Your task to perform on an android device: Go to ESPN.com Image 0: 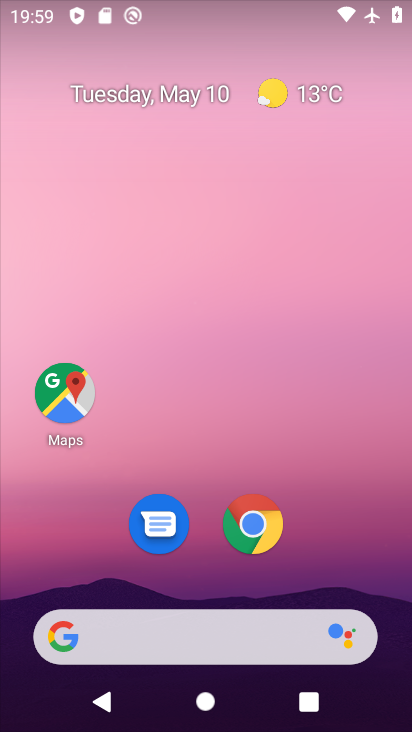
Step 0: click (269, 634)
Your task to perform on an android device: Go to ESPN.com Image 1: 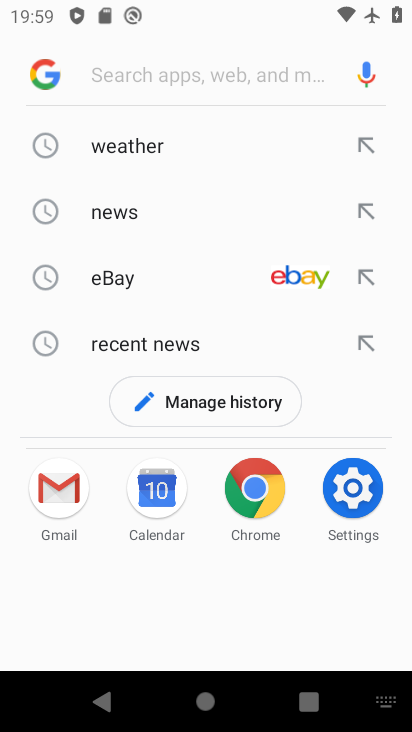
Step 1: type "espn.com"
Your task to perform on an android device: Go to ESPN.com Image 2: 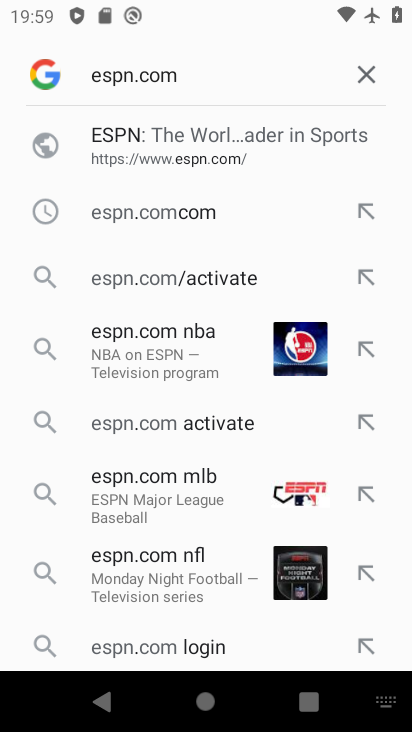
Step 2: click (115, 144)
Your task to perform on an android device: Go to ESPN.com Image 3: 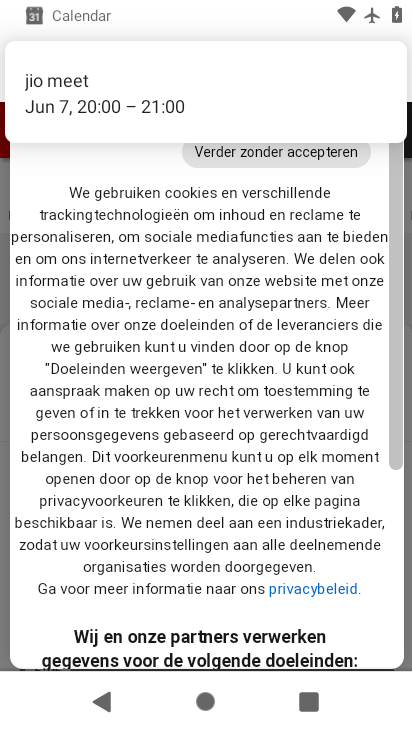
Step 3: task complete